Your task to perform on an android device: Play the last video I watched on Youtube Image 0: 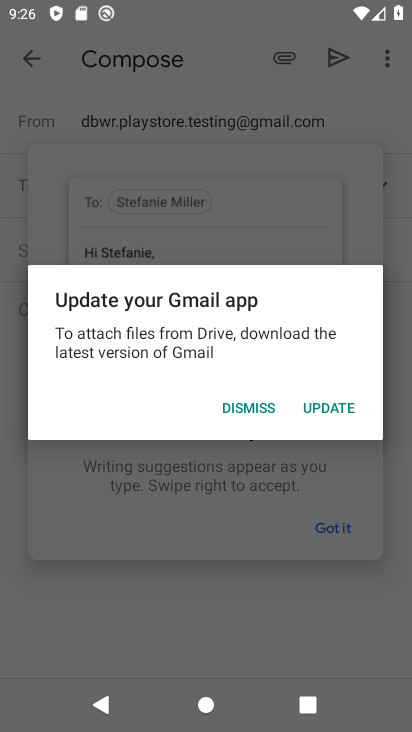
Step 0: press home button
Your task to perform on an android device: Play the last video I watched on Youtube Image 1: 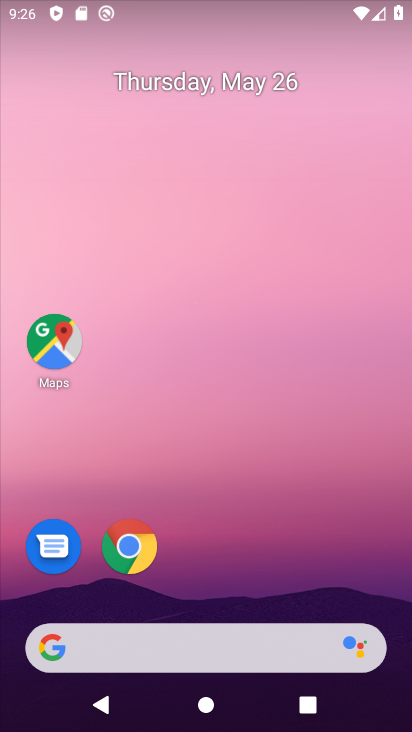
Step 1: drag from (262, 570) to (270, 215)
Your task to perform on an android device: Play the last video I watched on Youtube Image 2: 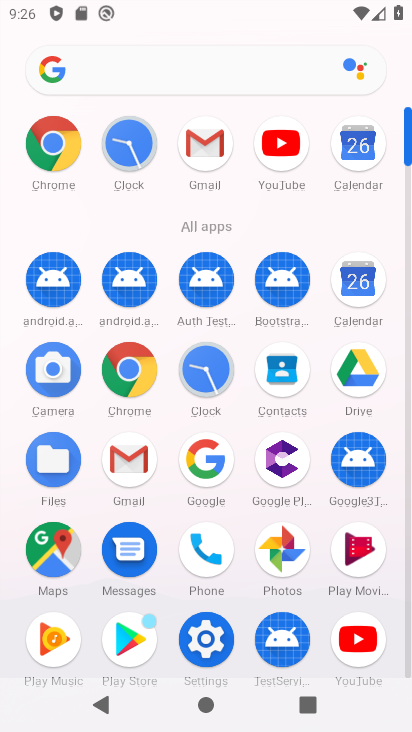
Step 2: click (352, 663)
Your task to perform on an android device: Play the last video I watched on Youtube Image 3: 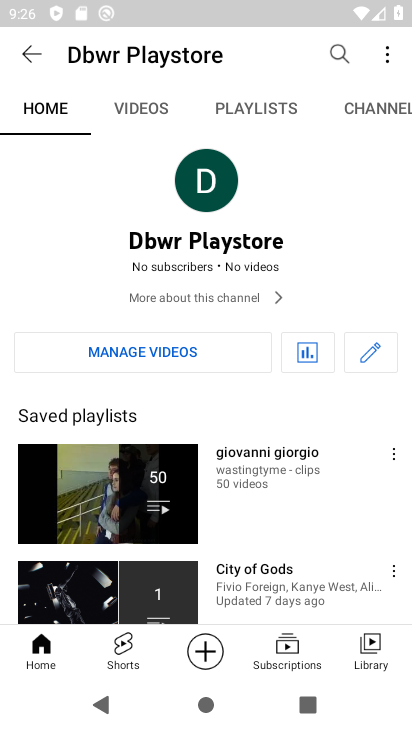
Step 3: click (378, 643)
Your task to perform on an android device: Play the last video I watched on Youtube Image 4: 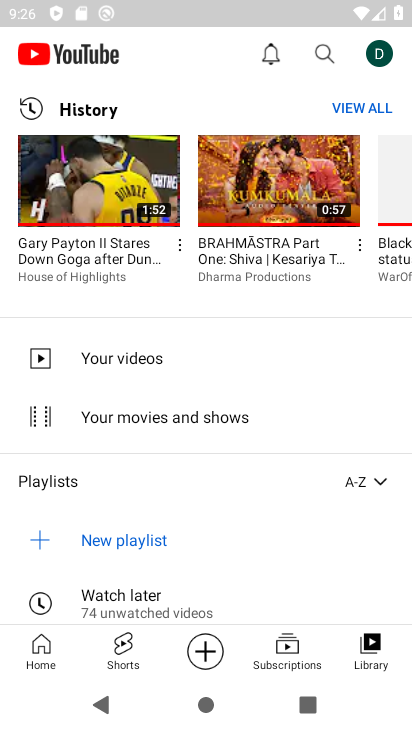
Step 4: task complete